Your task to perform on an android device: see creations saved in the google photos Image 0: 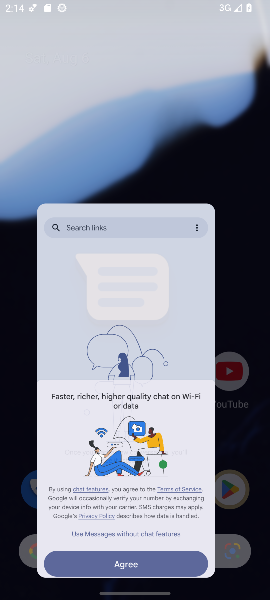
Step 0: press home button
Your task to perform on an android device: see creations saved in the google photos Image 1: 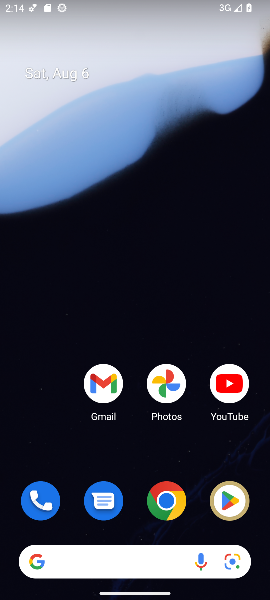
Step 1: click (166, 383)
Your task to perform on an android device: see creations saved in the google photos Image 2: 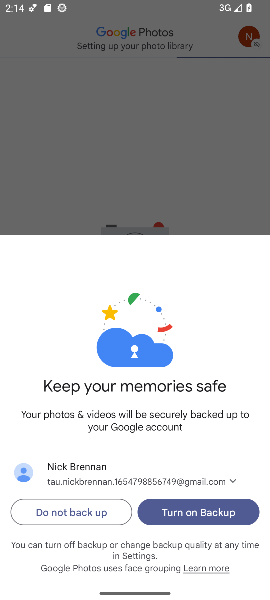
Step 2: click (76, 515)
Your task to perform on an android device: see creations saved in the google photos Image 3: 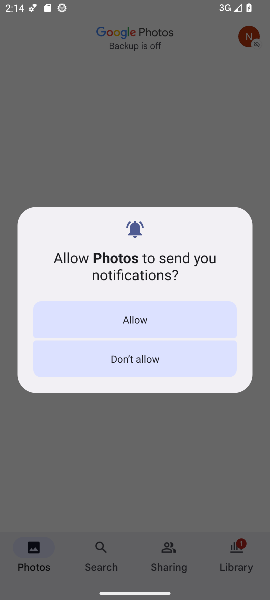
Step 3: click (135, 309)
Your task to perform on an android device: see creations saved in the google photos Image 4: 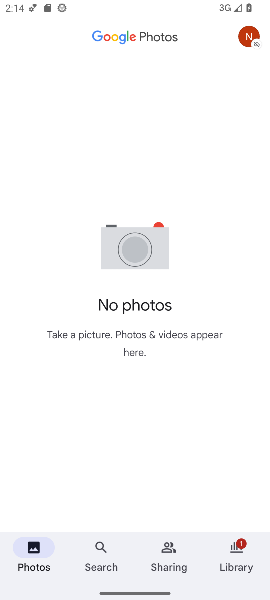
Step 4: click (98, 549)
Your task to perform on an android device: see creations saved in the google photos Image 5: 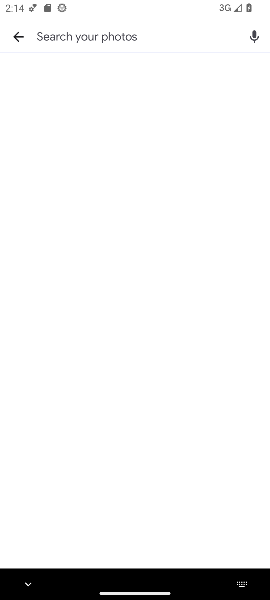
Step 5: click (115, 40)
Your task to perform on an android device: see creations saved in the google photos Image 6: 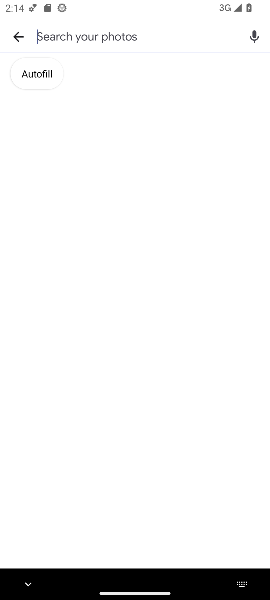
Step 6: click (122, 31)
Your task to perform on an android device: see creations saved in the google photos Image 7: 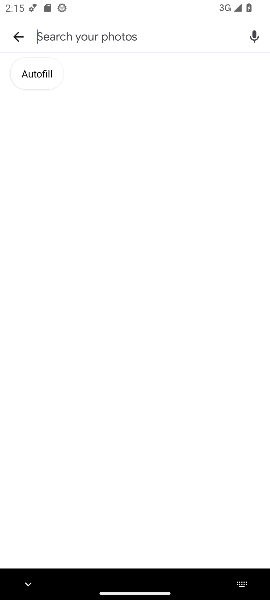
Step 7: task complete